Your task to perform on an android device: Search for vegetarian restaurants on Maps Image 0: 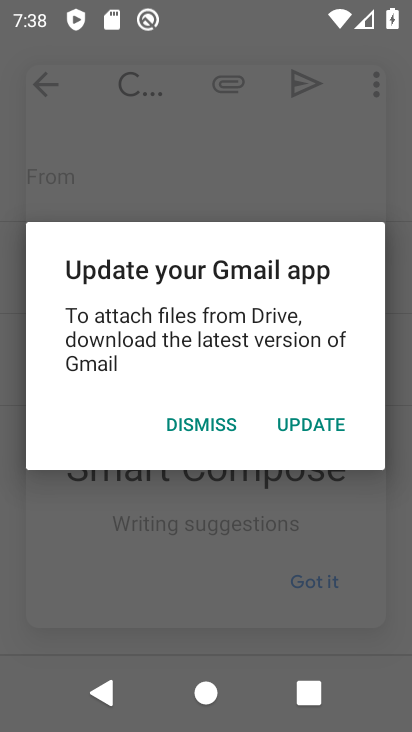
Step 0: press home button
Your task to perform on an android device: Search for vegetarian restaurants on Maps Image 1: 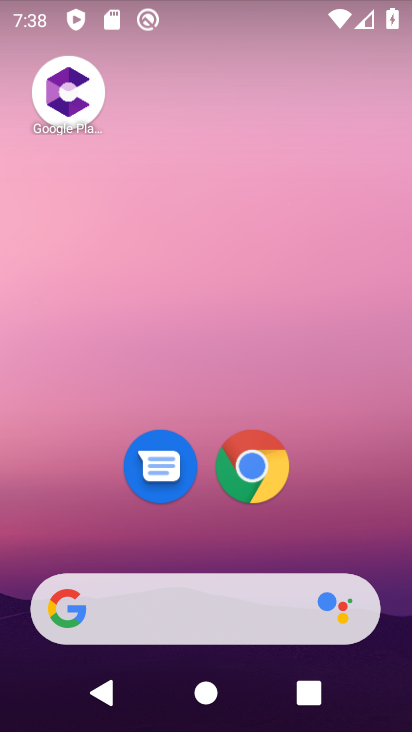
Step 1: drag from (359, 530) to (368, 92)
Your task to perform on an android device: Search for vegetarian restaurants on Maps Image 2: 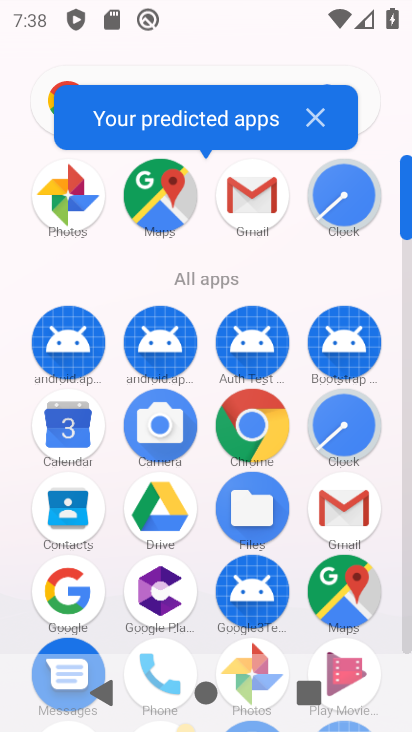
Step 2: drag from (200, 622) to (201, 362)
Your task to perform on an android device: Search for vegetarian restaurants on Maps Image 3: 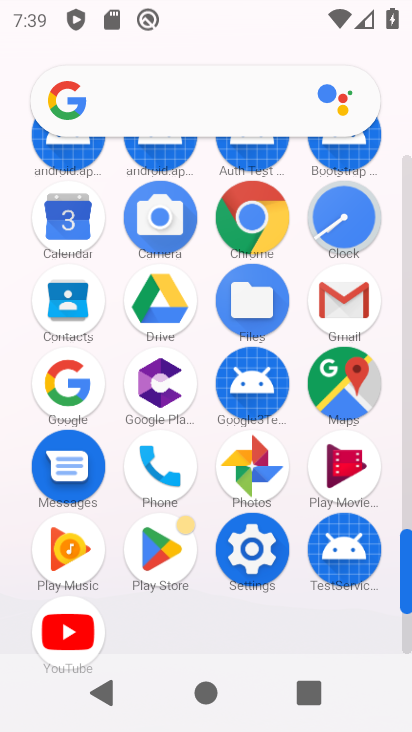
Step 3: click (199, 340)
Your task to perform on an android device: Search for vegetarian restaurants on Maps Image 4: 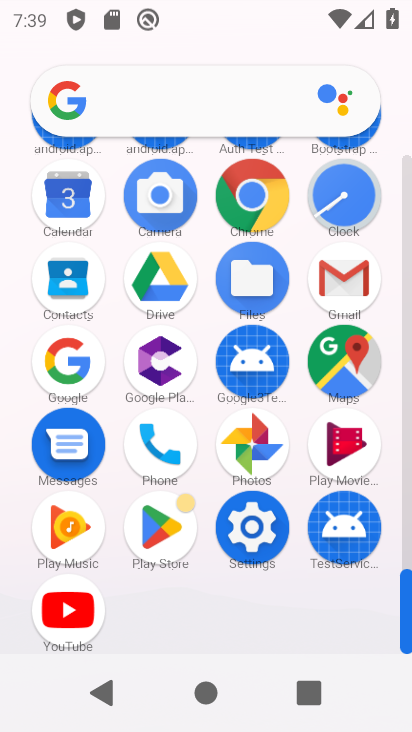
Step 4: click (359, 345)
Your task to perform on an android device: Search for vegetarian restaurants on Maps Image 5: 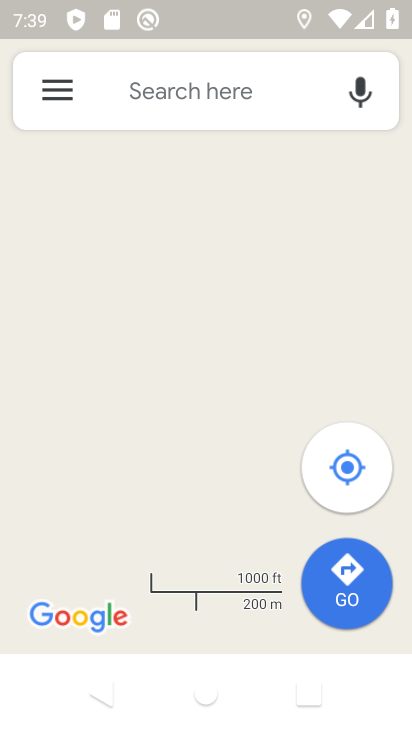
Step 5: click (201, 75)
Your task to perform on an android device: Search for vegetarian restaurants on Maps Image 6: 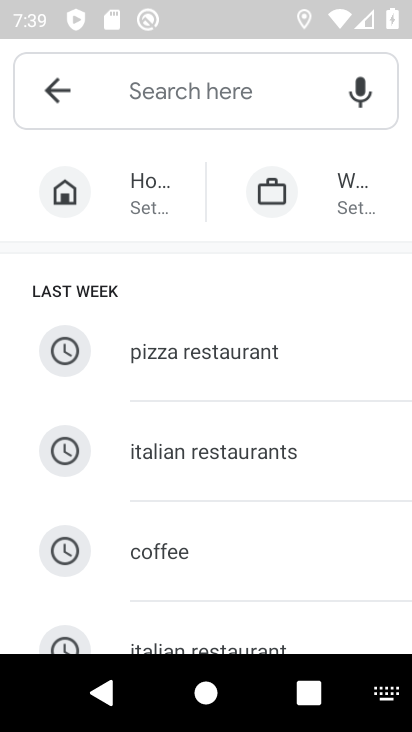
Step 6: type "vegetarian restaurants"
Your task to perform on an android device: Search for vegetarian restaurants on Maps Image 7: 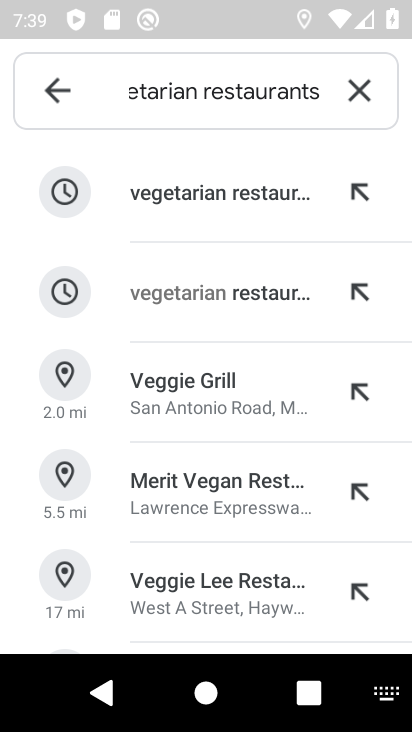
Step 7: press enter
Your task to perform on an android device: Search for vegetarian restaurants on Maps Image 8: 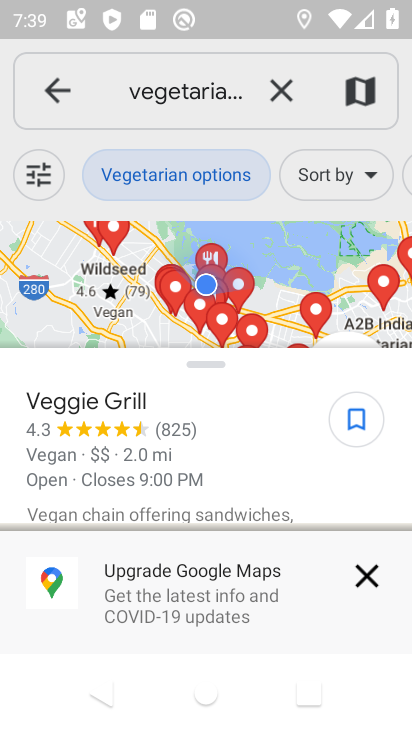
Step 8: task complete